Your task to perform on an android device: star an email in the gmail app Image 0: 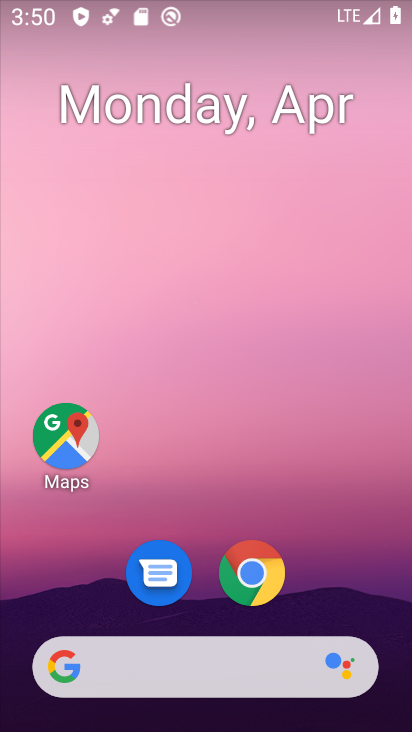
Step 0: drag from (367, 521) to (371, 126)
Your task to perform on an android device: star an email in the gmail app Image 1: 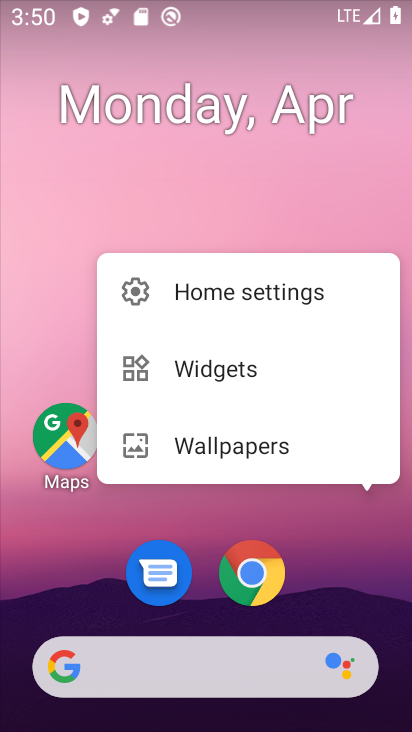
Step 1: click (354, 556)
Your task to perform on an android device: star an email in the gmail app Image 2: 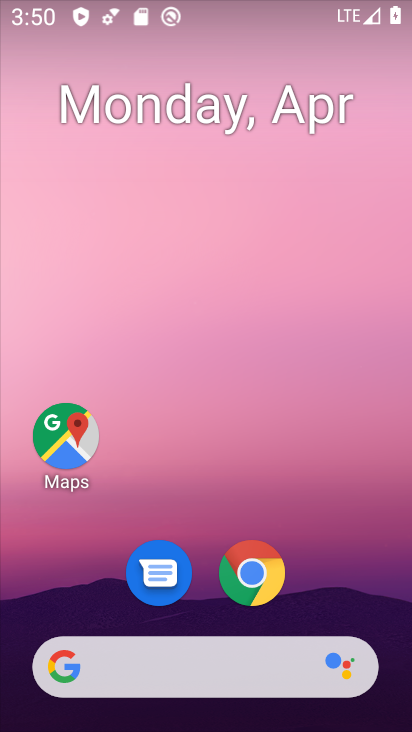
Step 2: drag from (357, 550) to (351, 81)
Your task to perform on an android device: star an email in the gmail app Image 3: 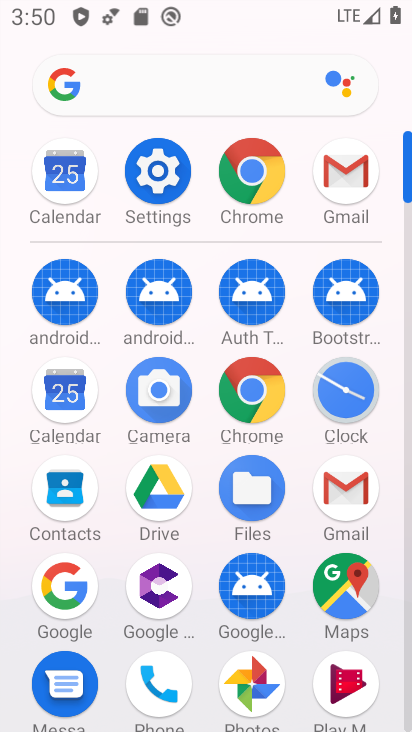
Step 3: click (363, 498)
Your task to perform on an android device: star an email in the gmail app Image 4: 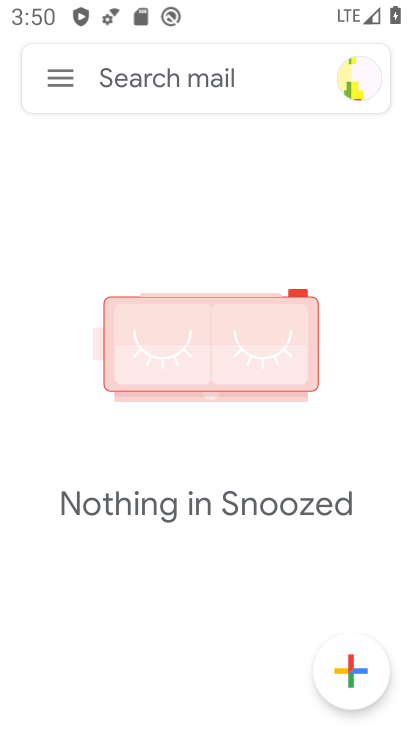
Step 4: click (63, 83)
Your task to perform on an android device: star an email in the gmail app Image 5: 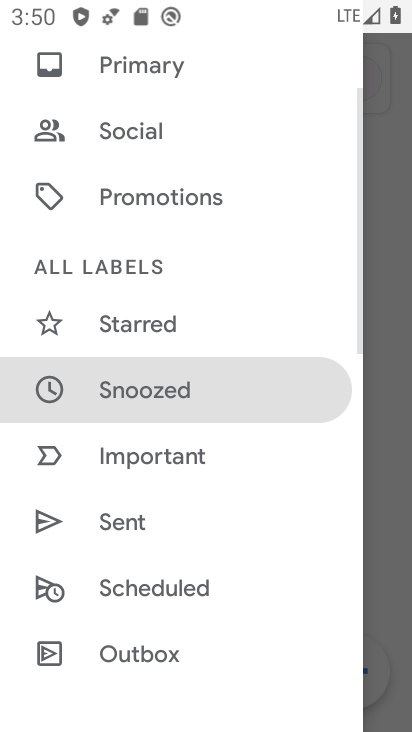
Step 5: drag from (271, 248) to (293, 374)
Your task to perform on an android device: star an email in the gmail app Image 6: 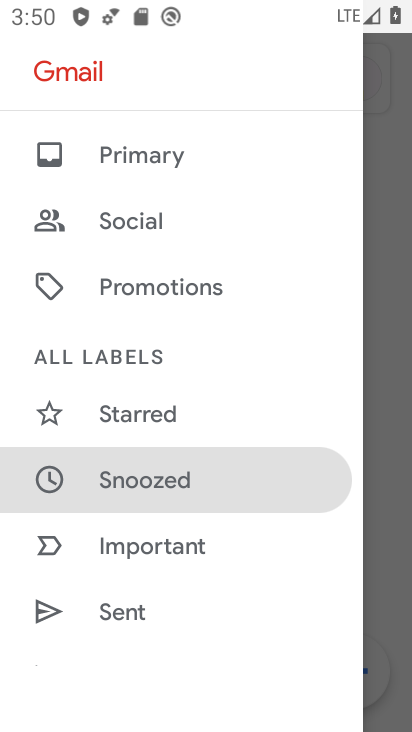
Step 6: drag from (278, 215) to (278, 371)
Your task to perform on an android device: star an email in the gmail app Image 7: 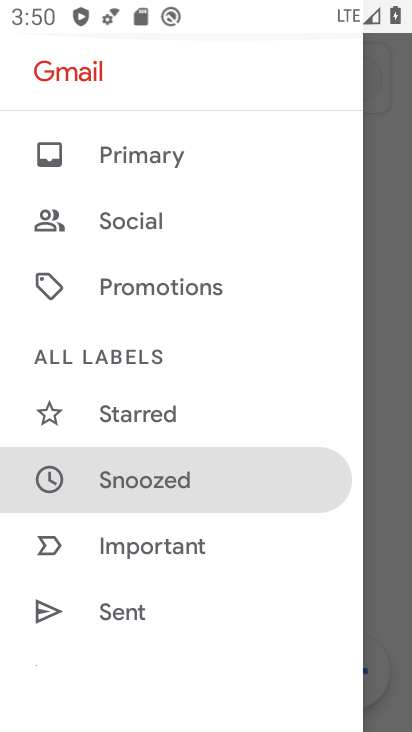
Step 7: click (185, 154)
Your task to perform on an android device: star an email in the gmail app Image 8: 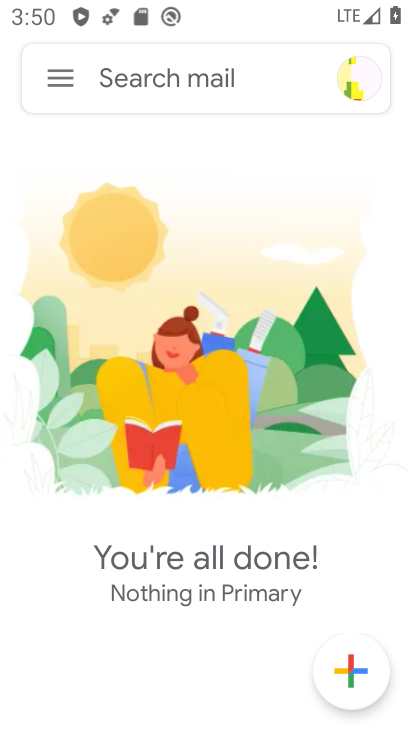
Step 8: task complete